Your task to perform on an android device: turn on location history Image 0: 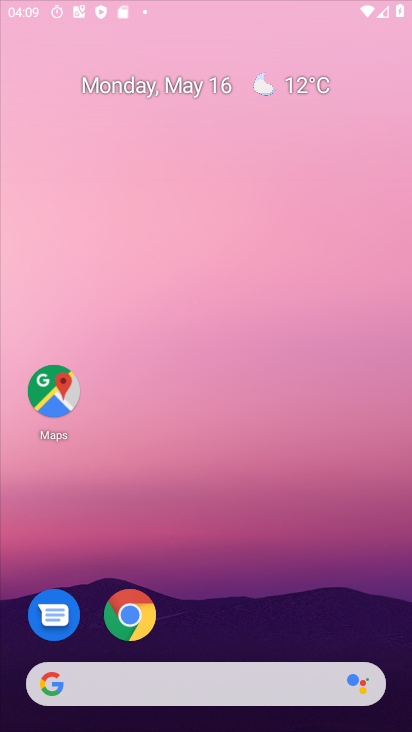
Step 0: drag from (376, 686) to (135, 63)
Your task to perform on an android device: turn on location history Image 1: 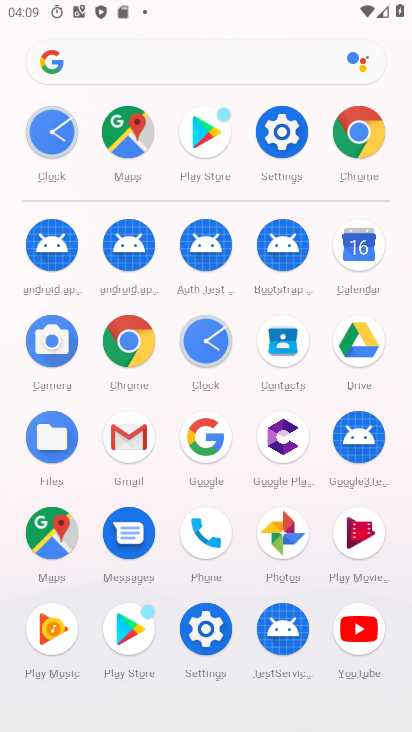
Step 1: click (49, 536)
Your task to perform on an android device: turn on location history Image 2: 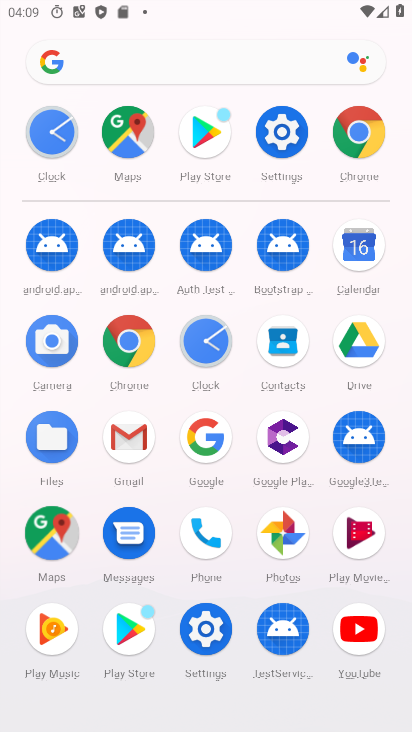
Step 2: click (50, 534)
Your task to perform on an android device: turn on location history Image 3: 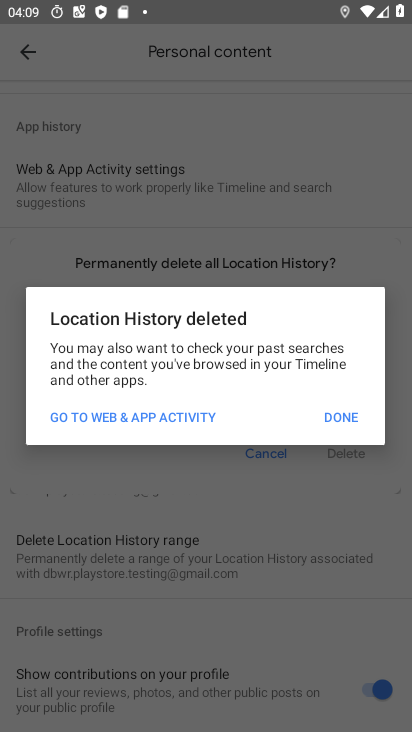
Step 3: click (344, 438)
Your task to perform on an android device: turn on location history Image 4: 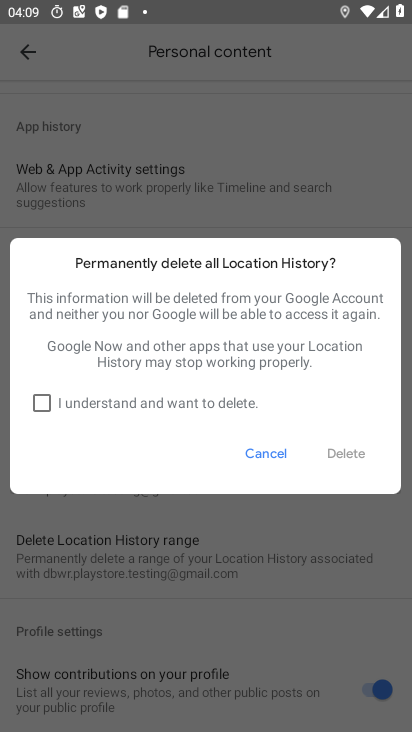
Step 4: click (345, 433)
Your task to perform on an android device: turn on location history Image 5: 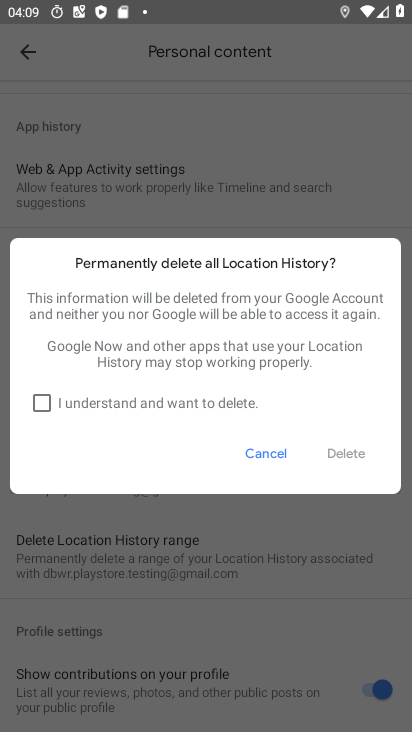
Step 5: click (276, 448)
Your task to perform on an android device: turn on location history Image 6: 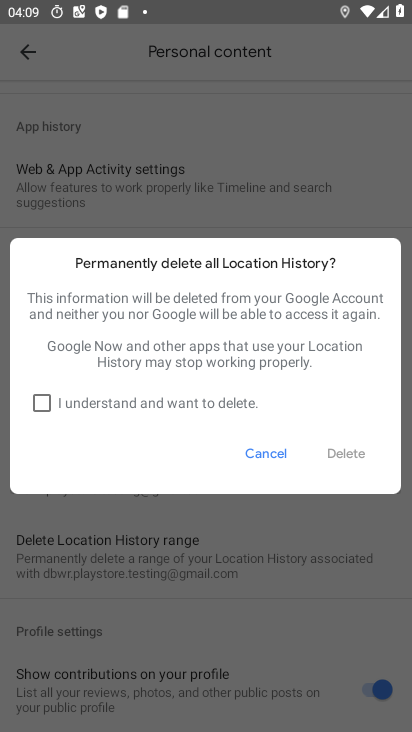
Step 6: click (276, 448)
Your task to perform on an android device: turn on location history Image 7: 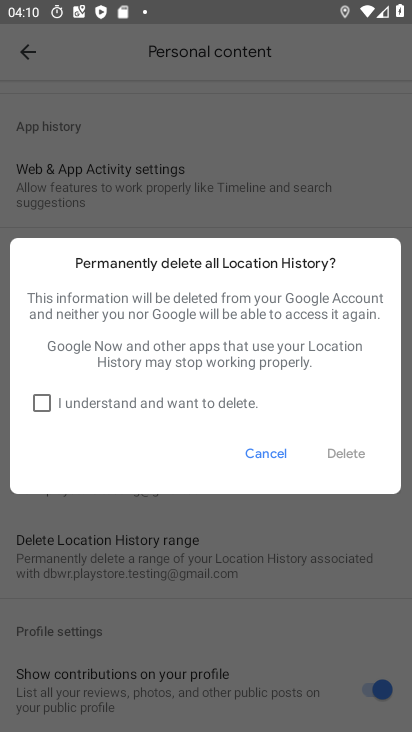
Step 7: click (38, 407)
Your task to perform on an android device: turn on location history Image 8: 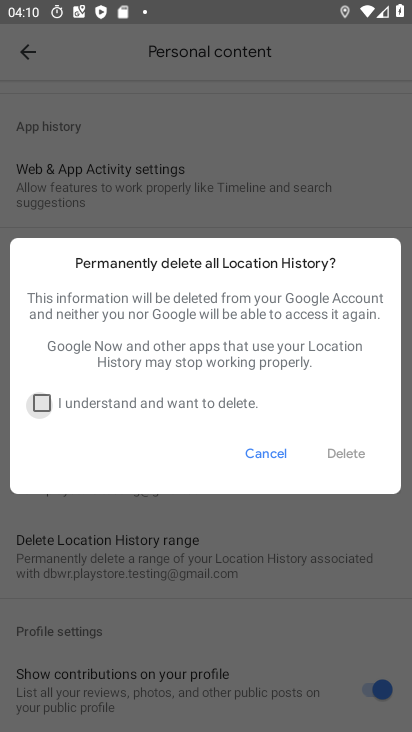
Step 8: click (38, 407)
Your task to perform on an android device: turn on location history Image 9: 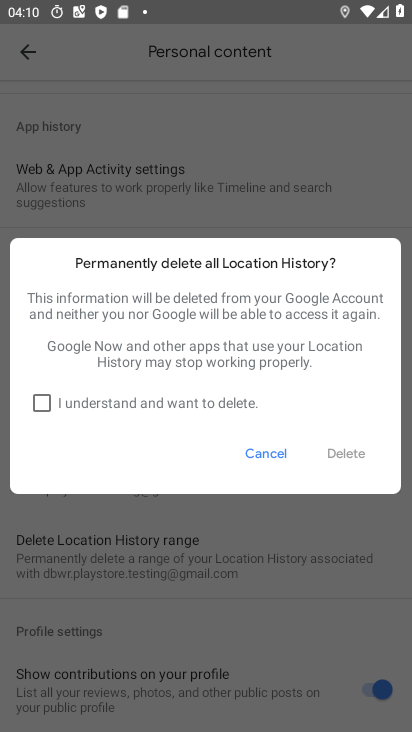
Step 9: click (45, 404)
Your task to perform on an android device: turn on location history Image 10: 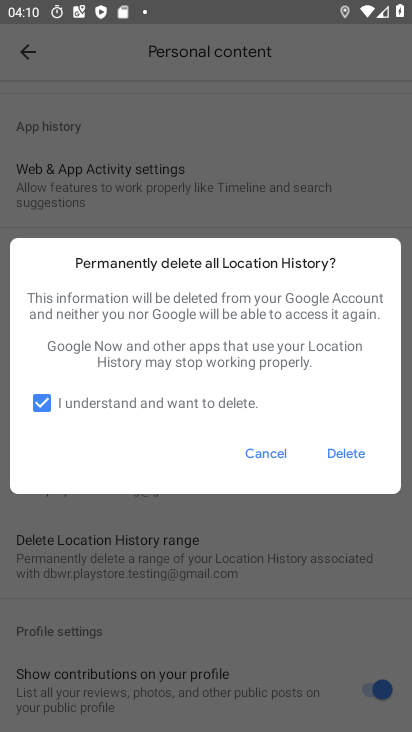
Step 10: click (336, 450)
Your task to perform on an android device: turn on location history Image 11: 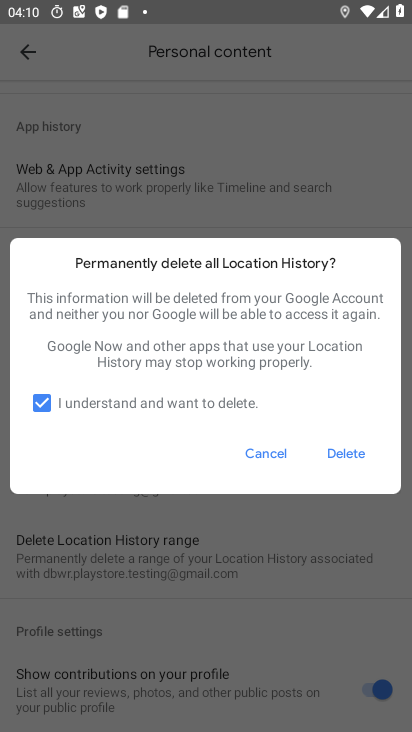
Step 11: click (338, 451)
Your task to perform on an android device: turn on location history Image 12: 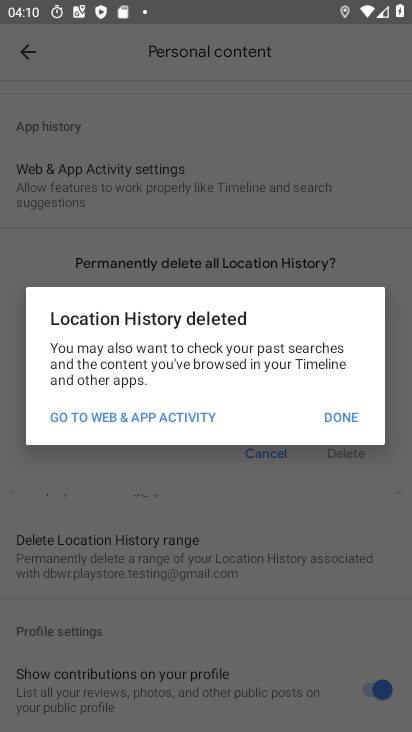
Step 12: task complete